Your task to perform on an android device: turn off picture-in-picture Image 0: 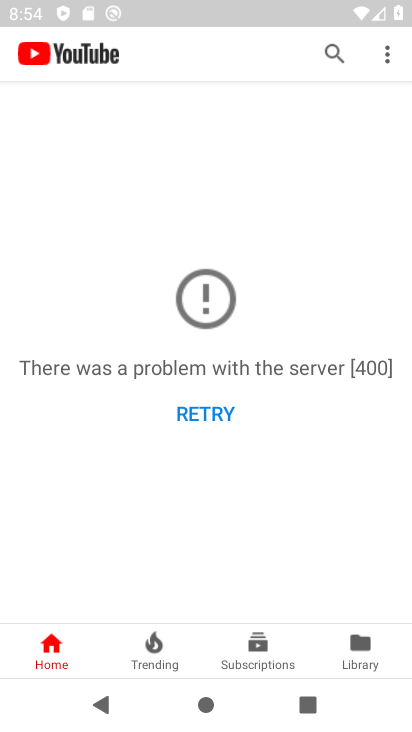
Step 0: press home button
Your task to perform on an android device: turn off picture-in-picture Image 1: 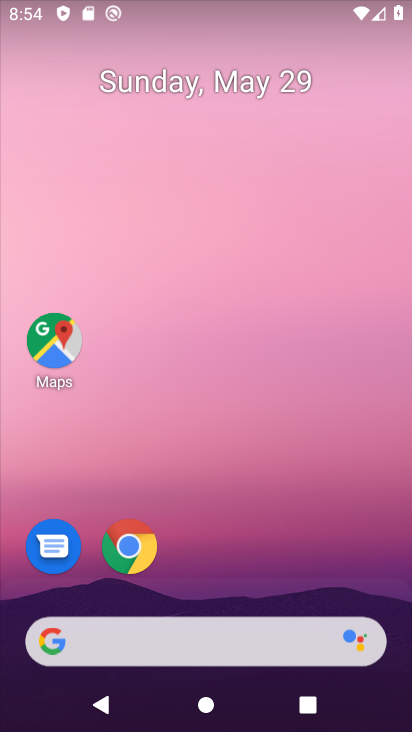
Step 1: drag from (146, 612) to (265, 10)
Your task to perform on an android device: turn off picture-in-picture Image 2: 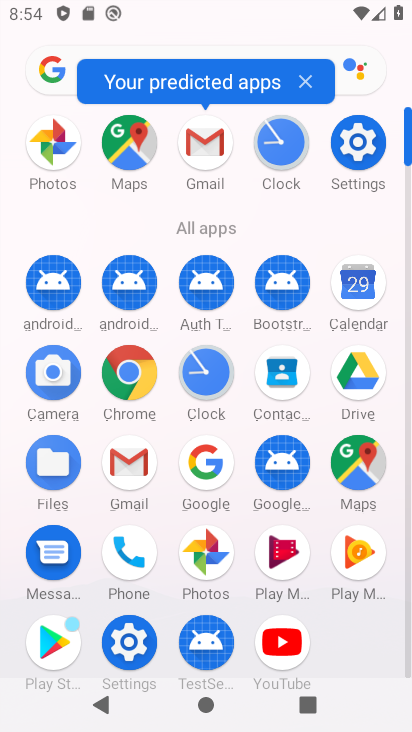
Step 2: drag from (169, 663) to (231, 354)
Your task to perform on an android device: turn off picture-in-picture Image 3: 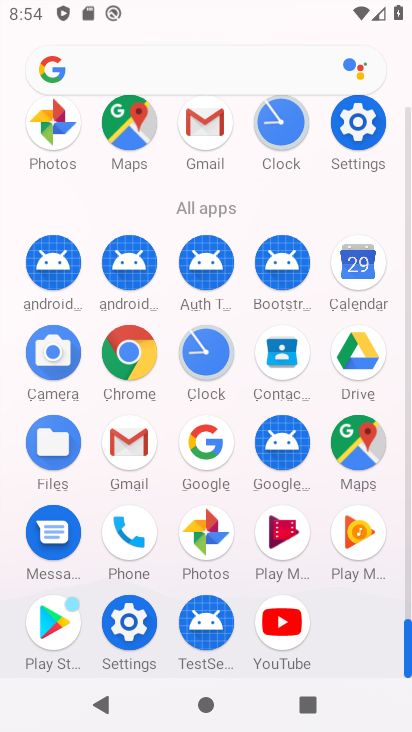
Step 3: click (128, 606)
Your task to perform on an android device: turn off picture-in-picture Image 4: 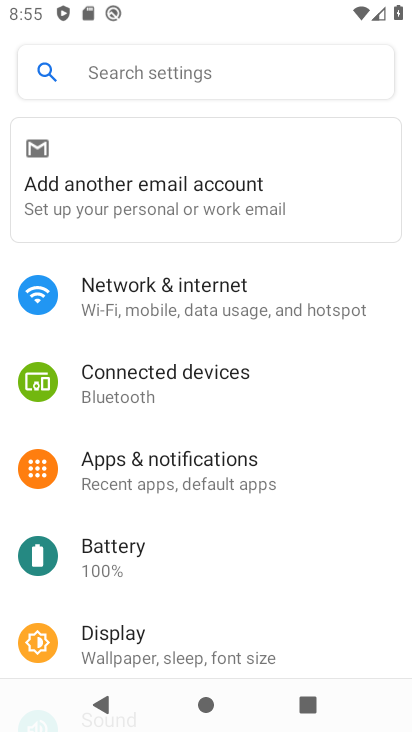
Step 4: click (214, 476)
Your task to perform on an android device: turn off picture-in-picture Image 5: 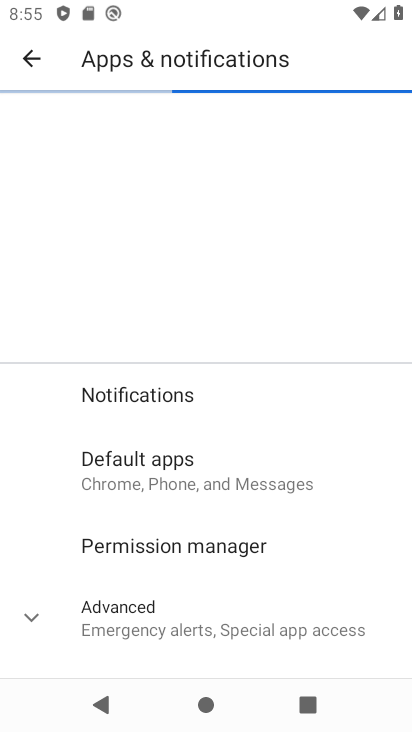
Step 5: drag from (237, 623) to (385, 306)
Your task to perform on an android device: turn off picture-in-picture Image 6: 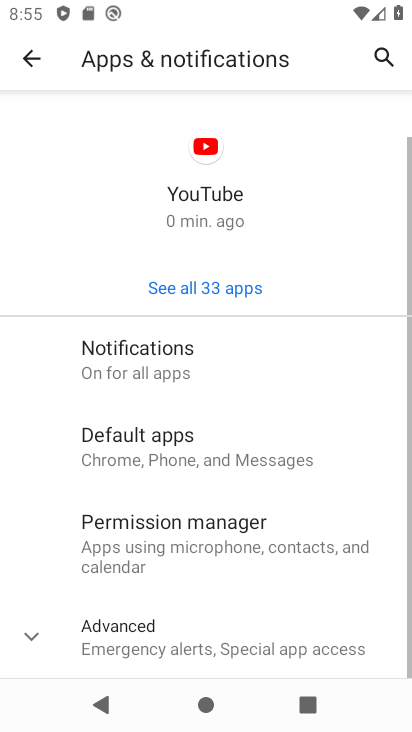
Step 6: click (221, 649)
Your task to perform on an android device: turn off picture-in-picture Image 7: 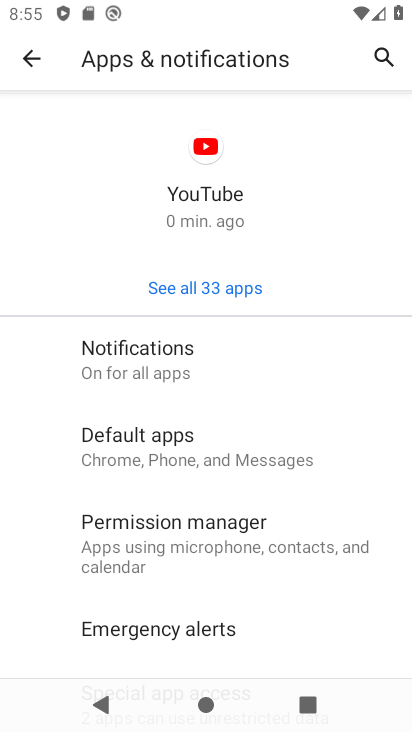
Step 7: drag from (225, 648) to (371, 230)
Your task to perform on an android device: turn off picture-in-picture Image 8: 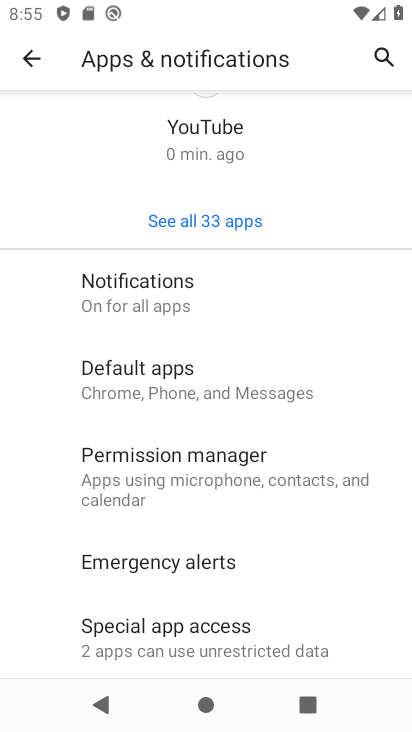
Step 8: click (233, 653)
Your task to perform on an android device: turn off picture-in-picture Image 9: 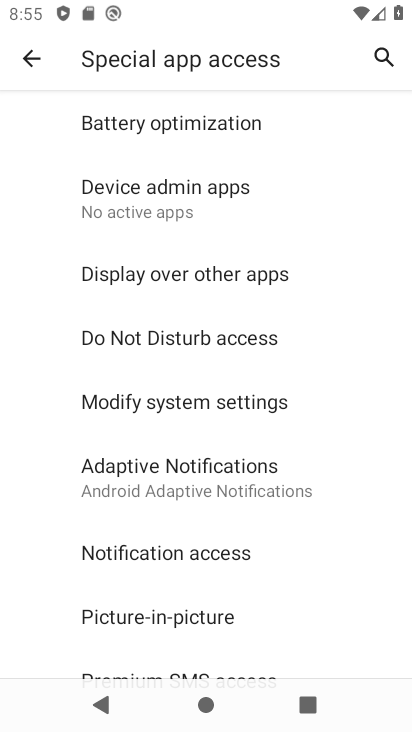
Step 9: click (165, 610)
Your task to perform on an android device: turn off picture-in-picture Image 10: 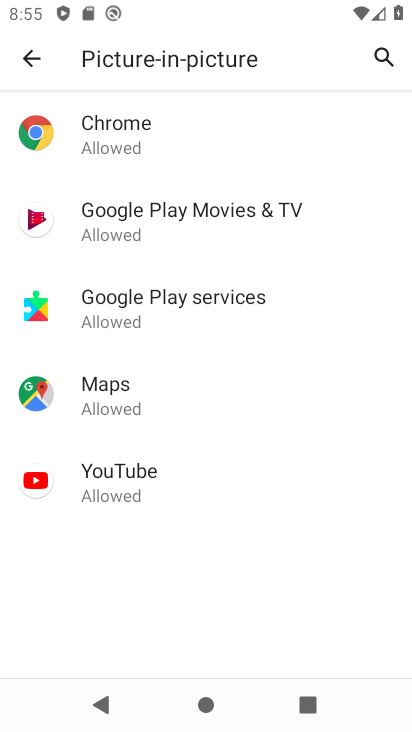
Step 10: click (269, 137)
Your task to perform on an android device: turn off picture-in-picture Image 11: 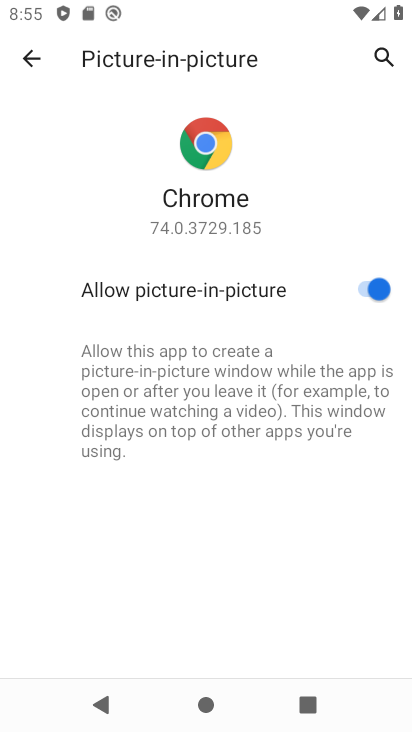
Step 11: click (367, 278)
Your task to perform on an android device: turn off picture-in-picture Image 12: 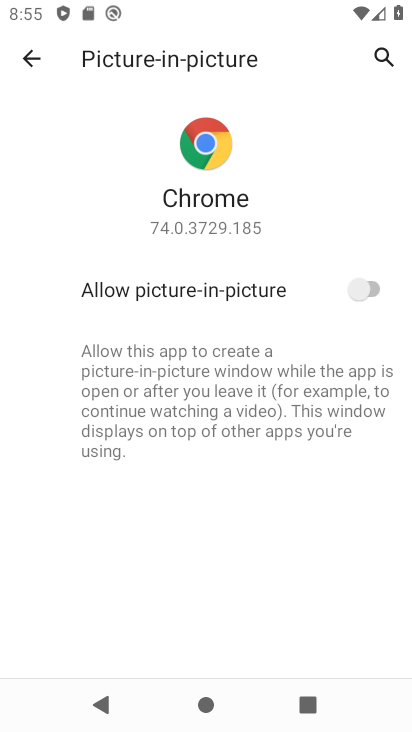
Step 12: press back button
Your task to perform on an android device: turn off picture-in-picture Image 13: 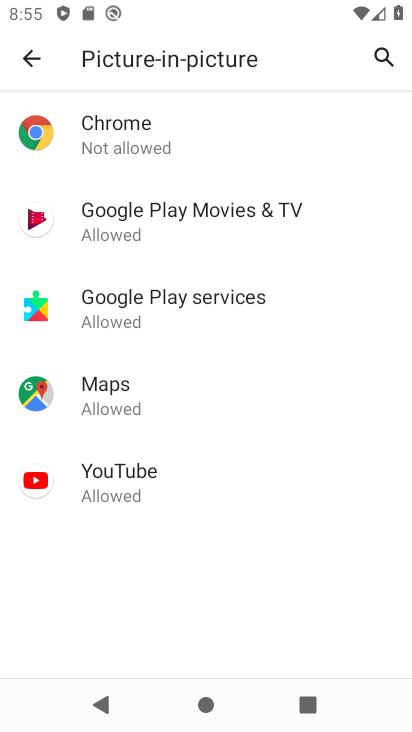
Step 13: click (287, 222)
Your task to perform on an android device: turn off picture-in-picture Image 14: 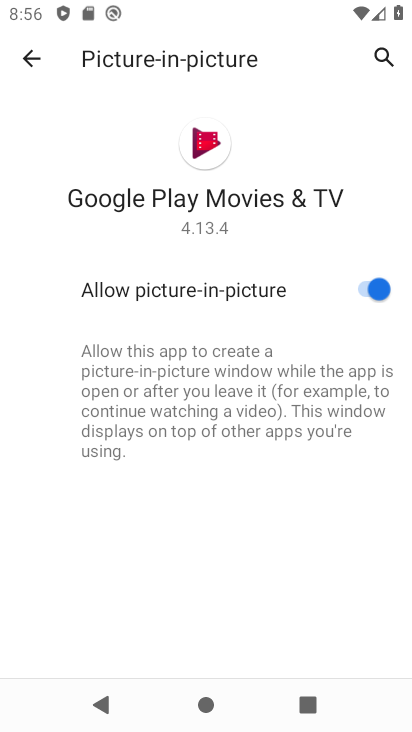
Step 14: click (367, 288)
Your task to perform on an android device: turn off picture-in-picture Image 15: 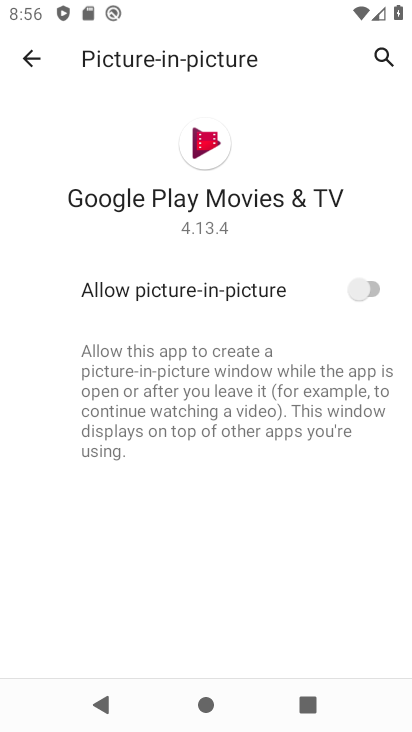
Step 15: press back button
Your task to perform on an android device: turn off picture-in-picture Image 16: 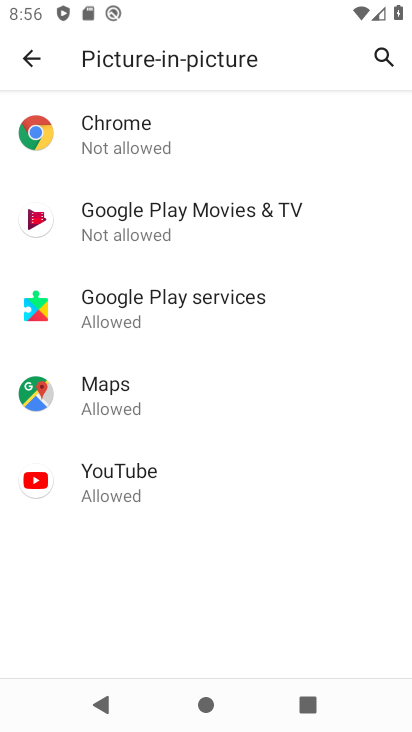
Step 16: click (275, 310)
Your task to perform on an android device: turn off picture-in-picture Image 17: 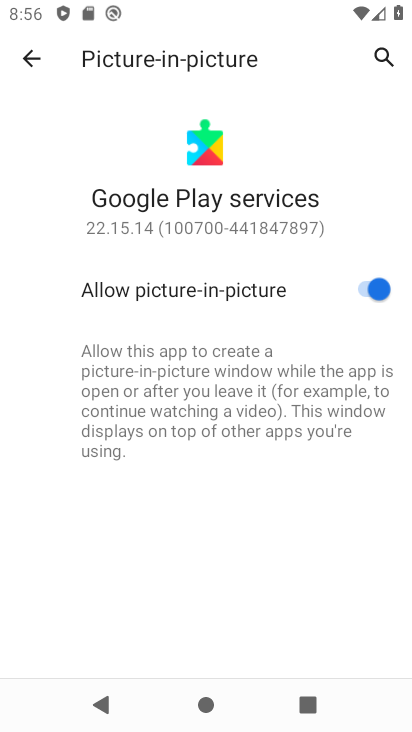
Step 17: click (348, 291)
Your task to perform on an android device: turn off picture-in-picture Image 18: 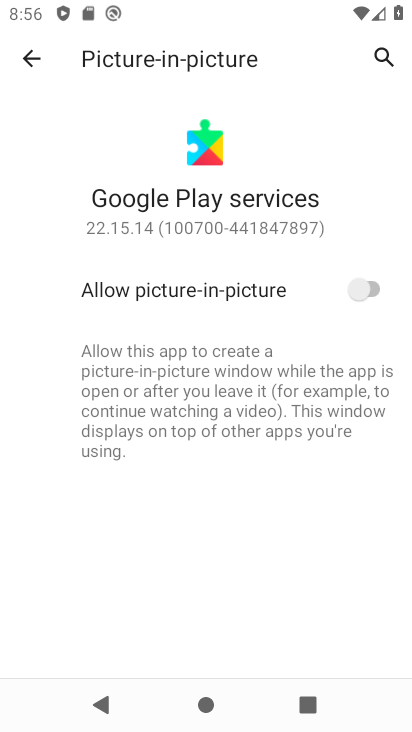
Step 18: press back button
Your task to perform on an android device: turn off picture-in-picture Image 19: 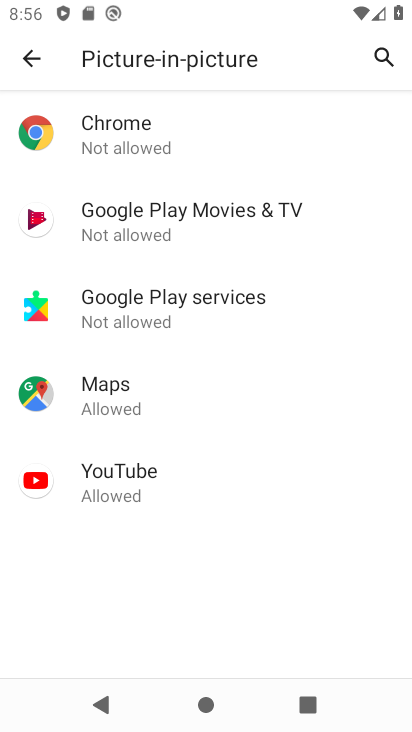
Step 19: click (223, 416)
Your task to perform on an android device: turn off picture-in-picture Image 20: 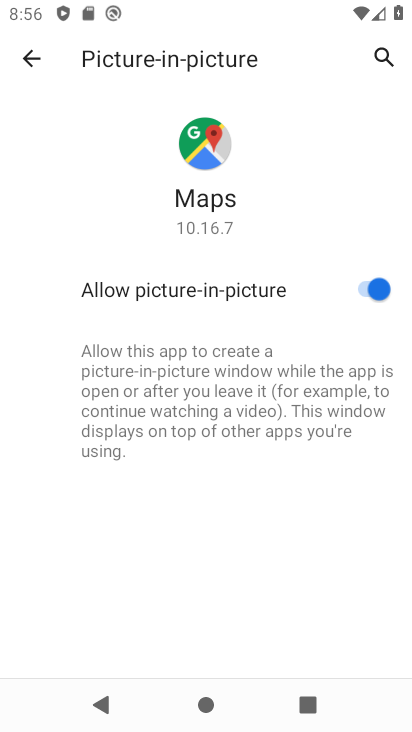
Step 20: click (375, 287)
Your task to perform on an android device: turn off picture-in-picture Image 21: 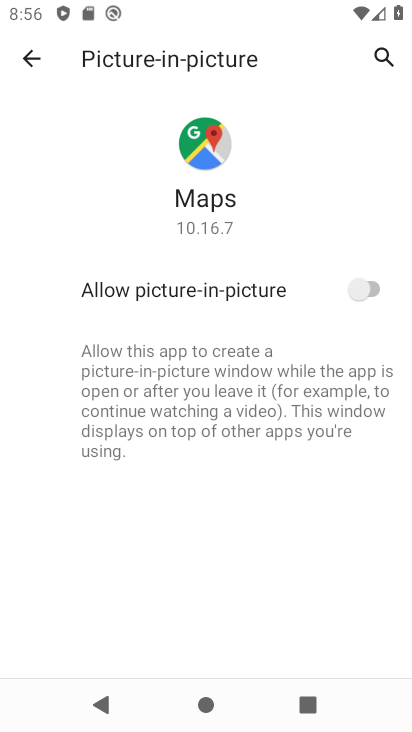
Step 21: press back button
Your task to perform on an android device: turn off picture-in-picture Image 22: 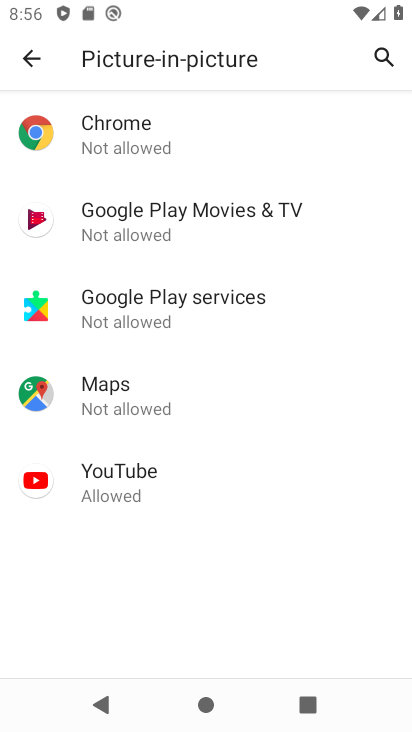
Step 22: click (184, 496)
Your task to perform on an android device: turn off picture-in-picture Image 23: 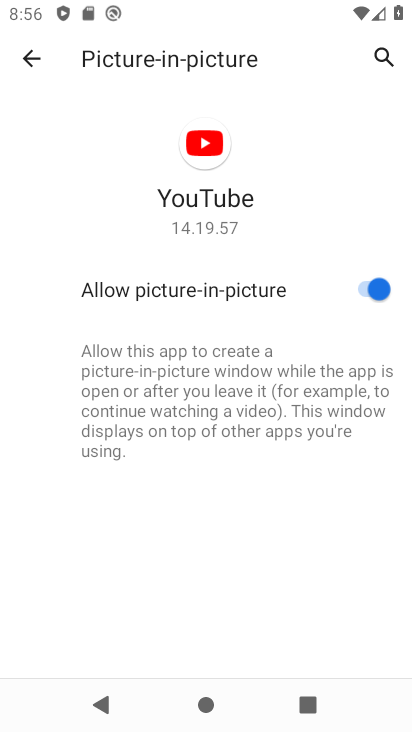
Step 23: click (374, 293)
Your task to perform on an android device: turn off picture-in-picture Image 24: 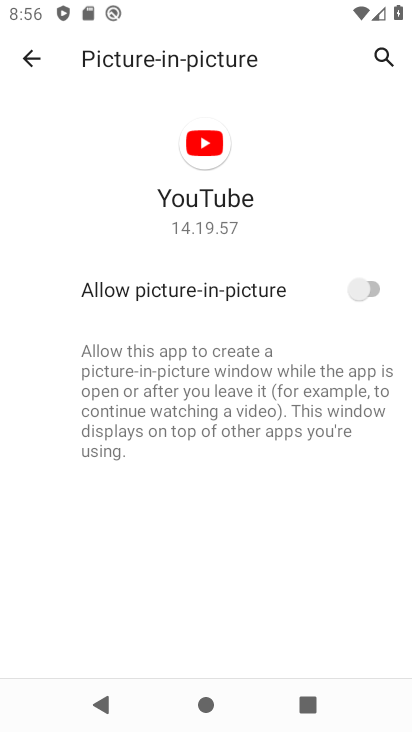
Step 24: task complete